Your task to perform on an android device: turn on translation in the chrome app Image 0: 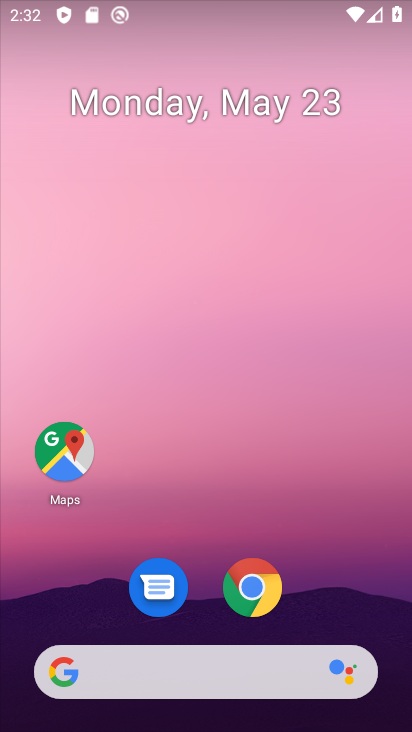
Step 0: click (244, 297)
Your task to perform on an android device: turn on translation in the chrome app Image 1: 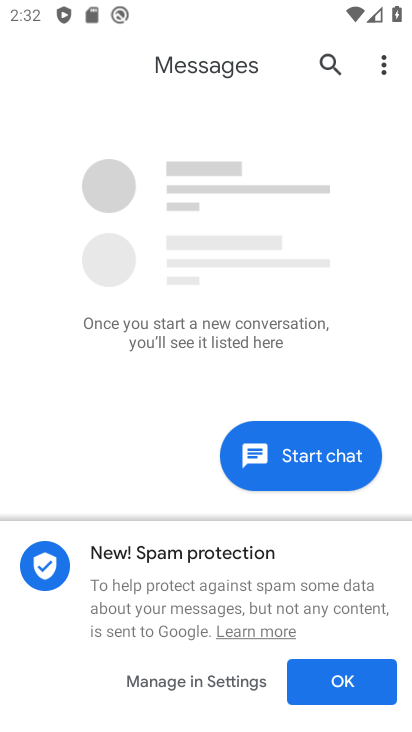
Step 1: drag from (202, 606) to (208, 306)
Your task to perform on an android device: turn on translation in the chrome app Image 2: 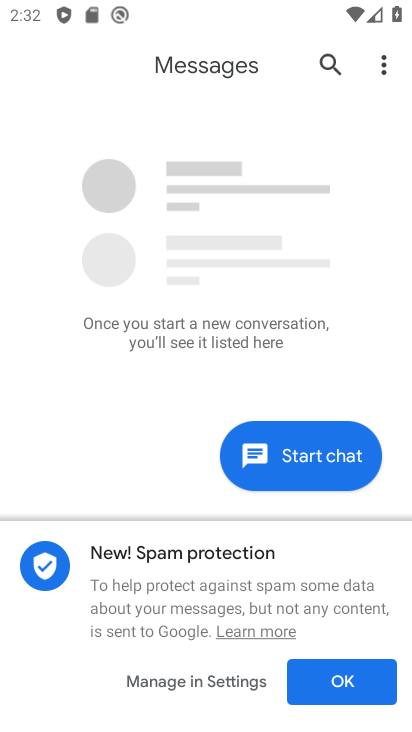
Step 2: press home button
Your task to perform on an android device: turn on translation in the chrome app Image 3: 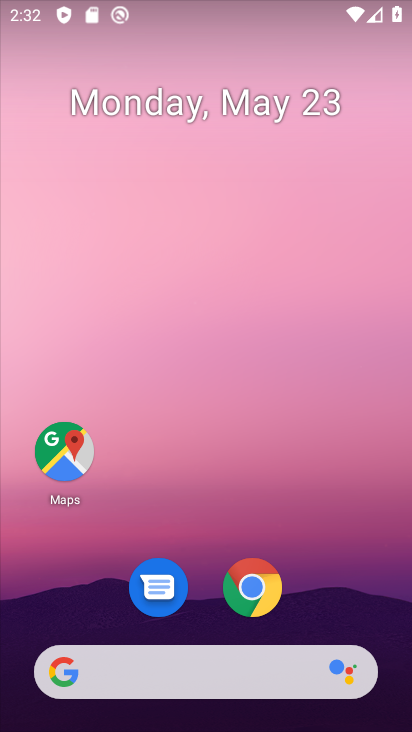
Step 3: click (253, 585)
Your task to perform on an android device: turn on translation in the chrome app Image 4: 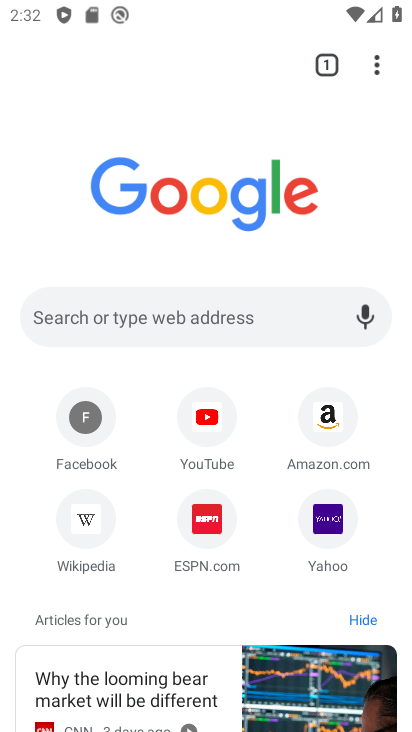
Step 4: click (375, 63)
Your task to perform on an android device: turn on translation in the chrome app Image 5: 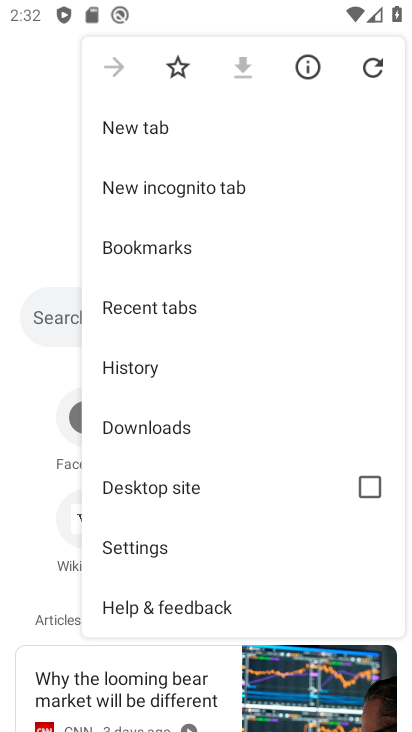
Step 5: click (144, 557)
Your task to perform on an android device: turn on translation in the chrome app Image 6: 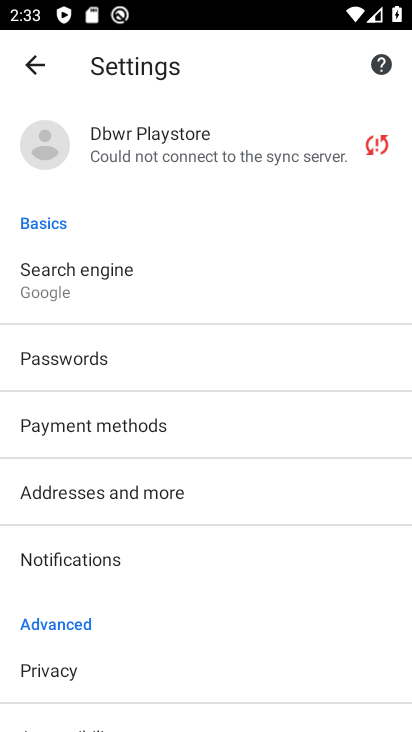
Step 6: drag from (147, 591) to (261, 218)
Your task to perform on an android device: turn on translation in the chrome app Image 7: 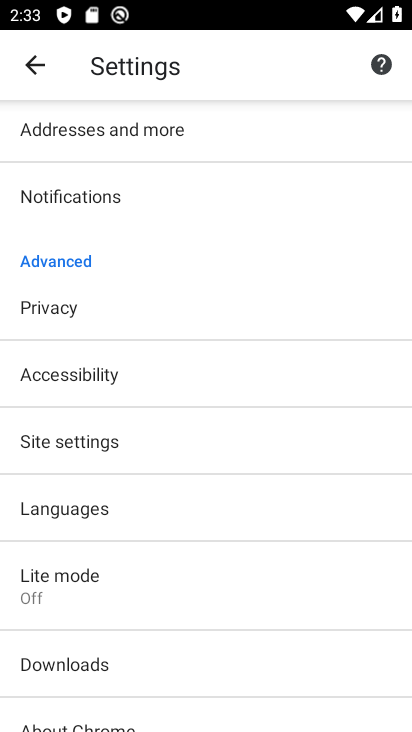
Step 7: drag from (104, 617) to (154, 424)
Your task to perform on an android device: turn on translation in the chrome app Image 8: 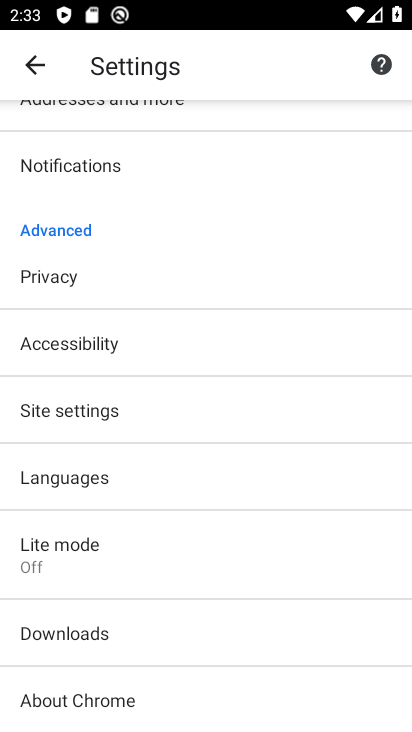
Step 8: click (89, 481)
Your task to perform on an android device: turn on translation in the chrome app Image 9: 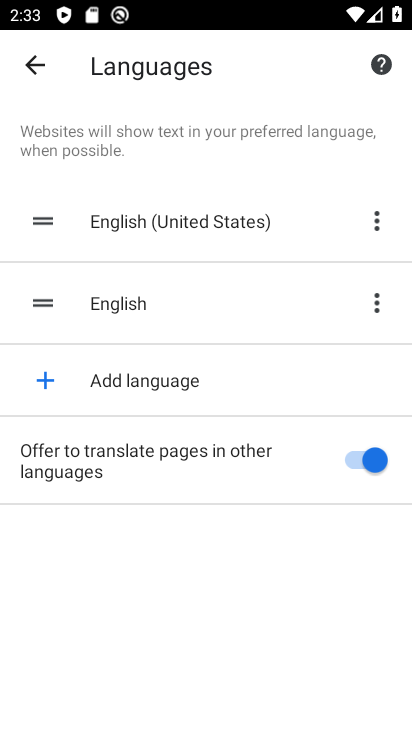
Step 9: task complete